Your task to perform on an android device: check the backup settings in the google photos Image 0: 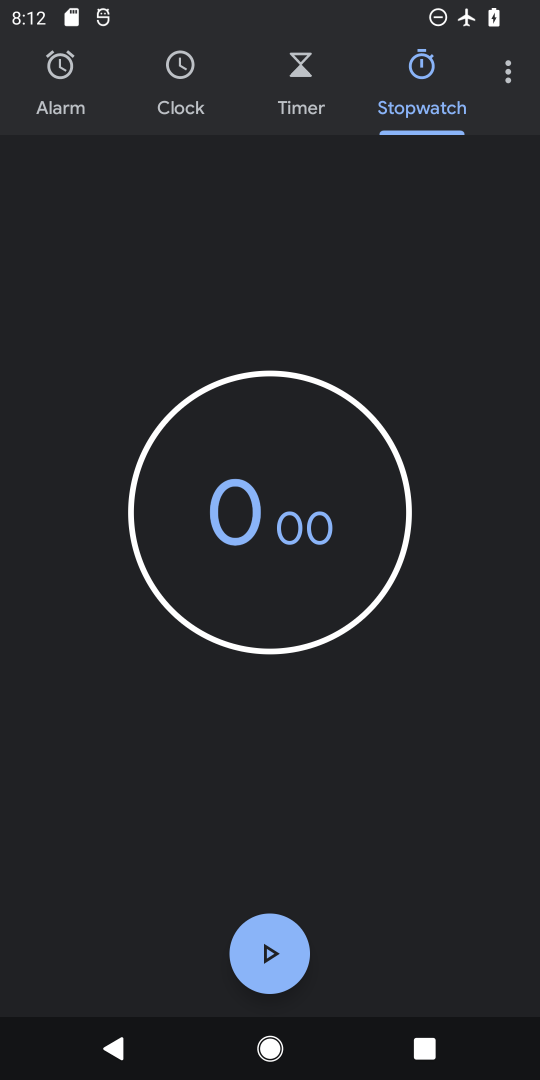
Step 0: press back button
Your task to perform on an android device: check the backup settings in the google photos Image 1: 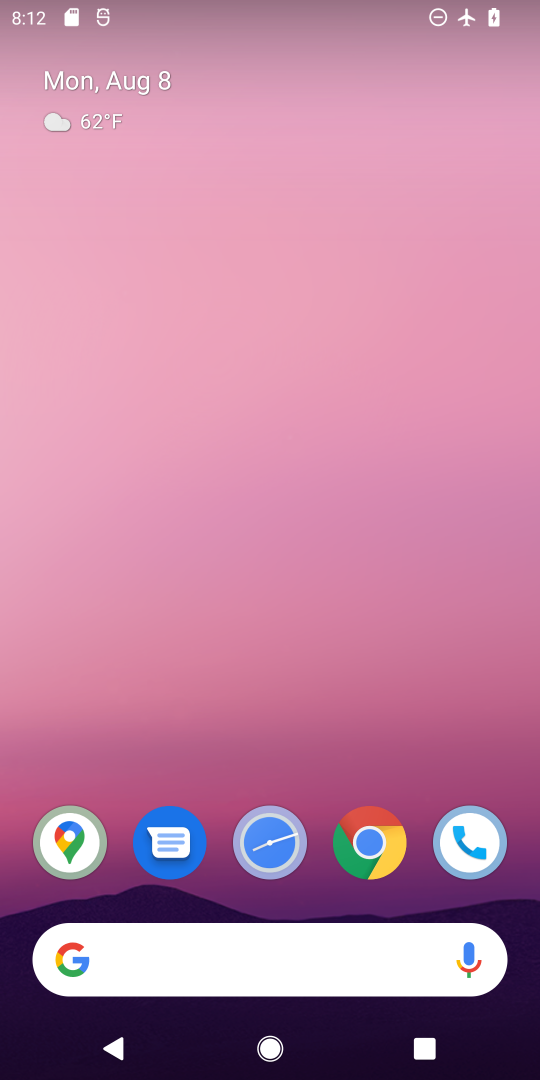
Step 1: drag from (313, 910) to (273, 128)
Your task to perform on an android device: check the backup settings in the google photos Image 2: 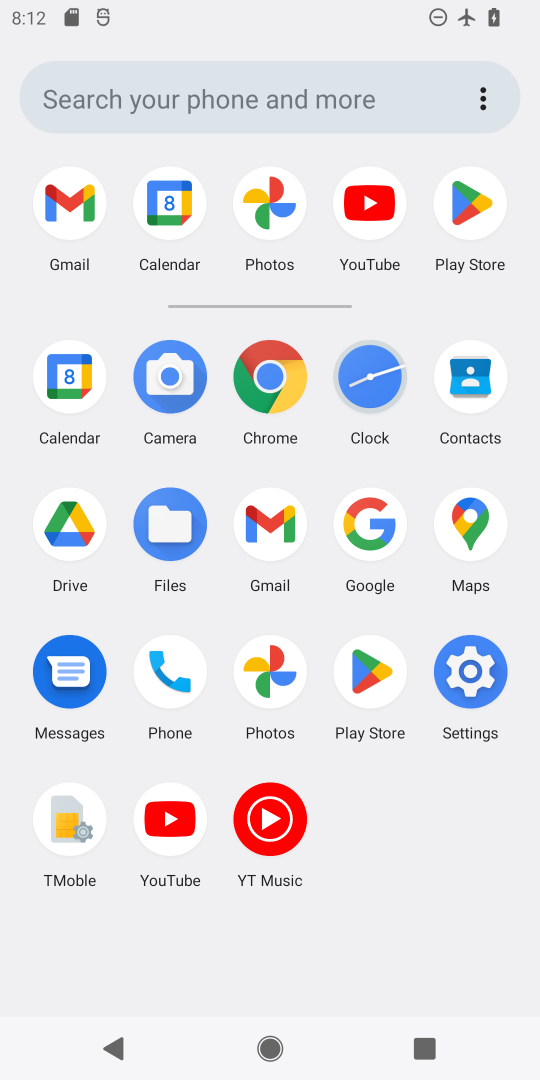
Step 2: click (497, 692)
Your task to perform on an android device: check the backup settings in the google photos Image 3: 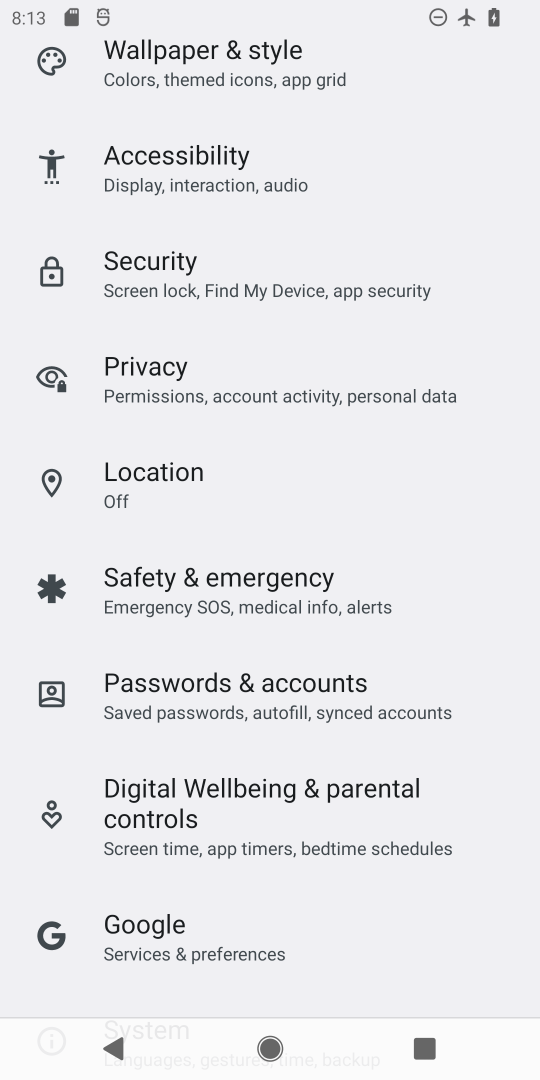
Step 3: press home button
Your task to perform on an android device: check the backup settings in the google photos Image 4: 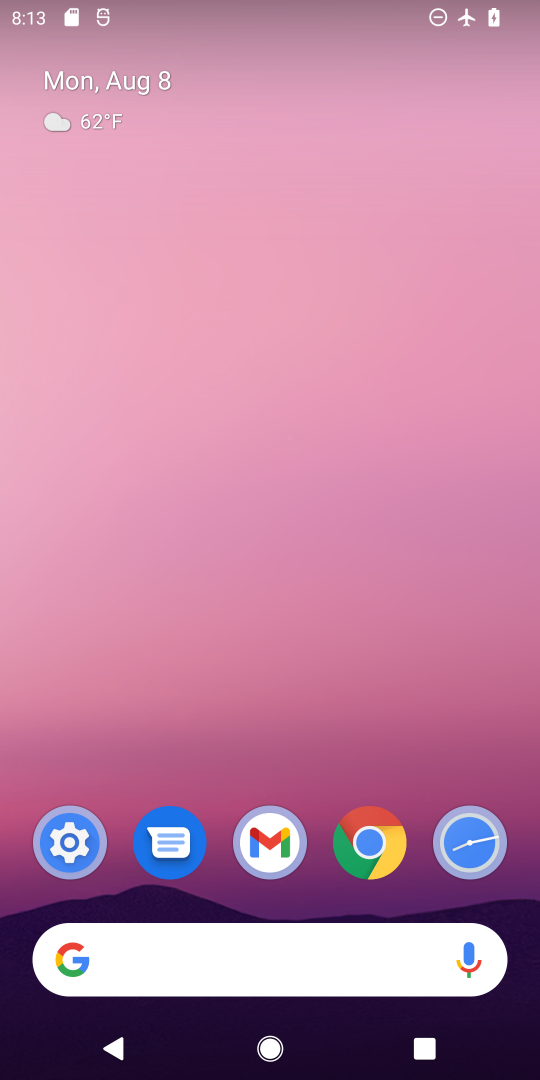
Step 4: drag from (277, 145) to (268, 4)
Your task to perform on an android device: check the backup settings in the google photos Image 5: 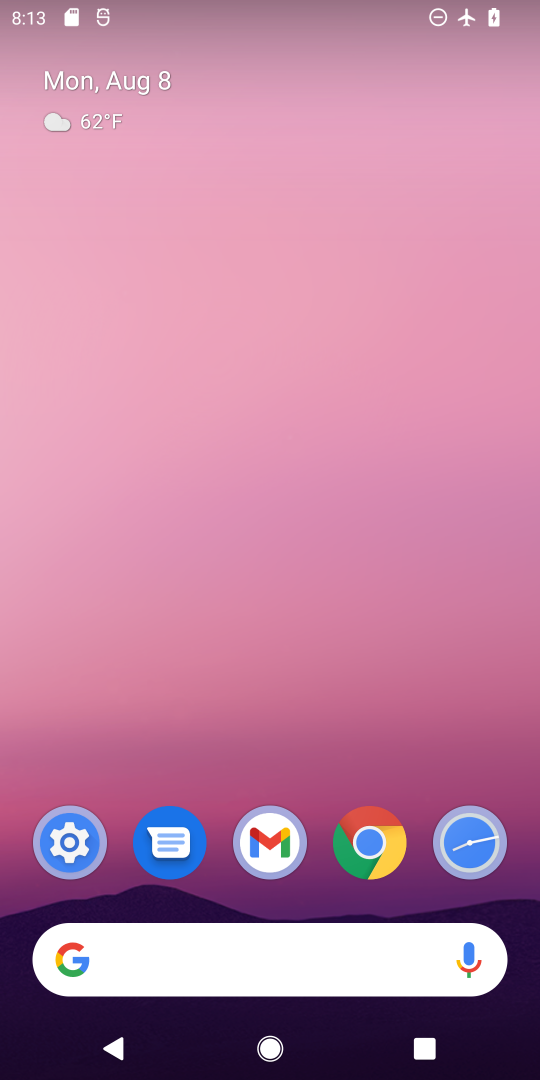
Step 5: drag from (227, 330) to (220, 49)
Your task to perform on an android device: check the backup settings in the google photos Image 6: 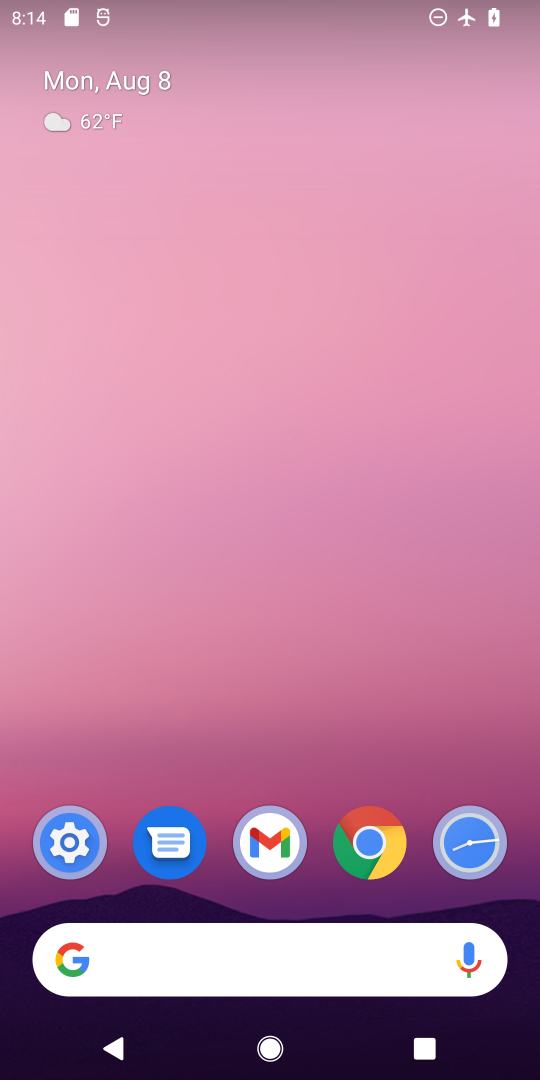
Step 6: drag from (308, 801) to (211, 157)
Your task to perform on an android device: check the backup settings in the google photos Image 7: 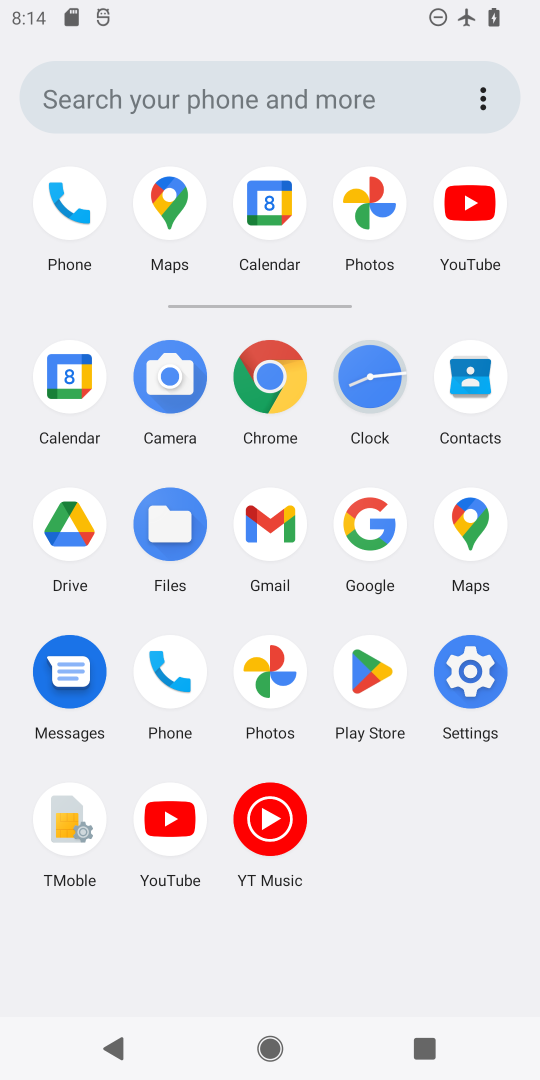
Step 7: click (249, 666)
Your task to perform on an android device: check the backup settings in the google photos Image 8: 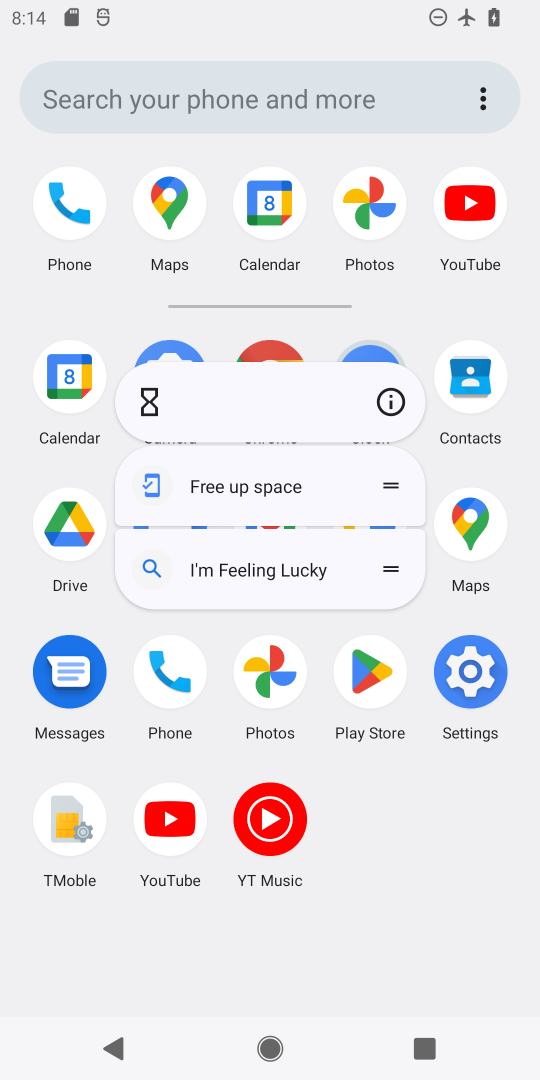
Step 8: click (279, 700)
Your task to perform on an android device: check the backup settings in the google photos Image 9: 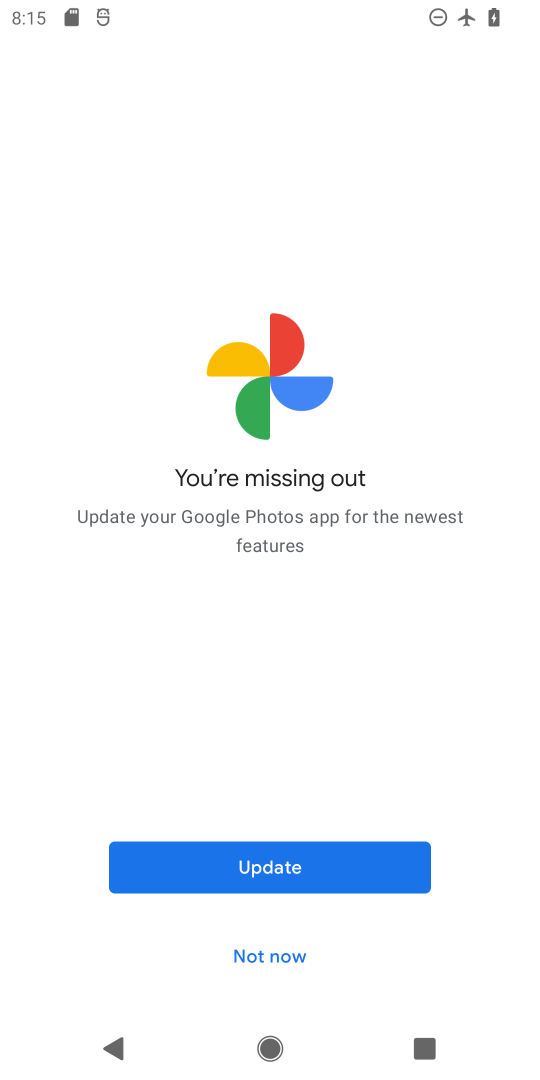
Step 9: click (241, 945)
Your task to perform on an android device: check the backup settings in the google photos Image 10: 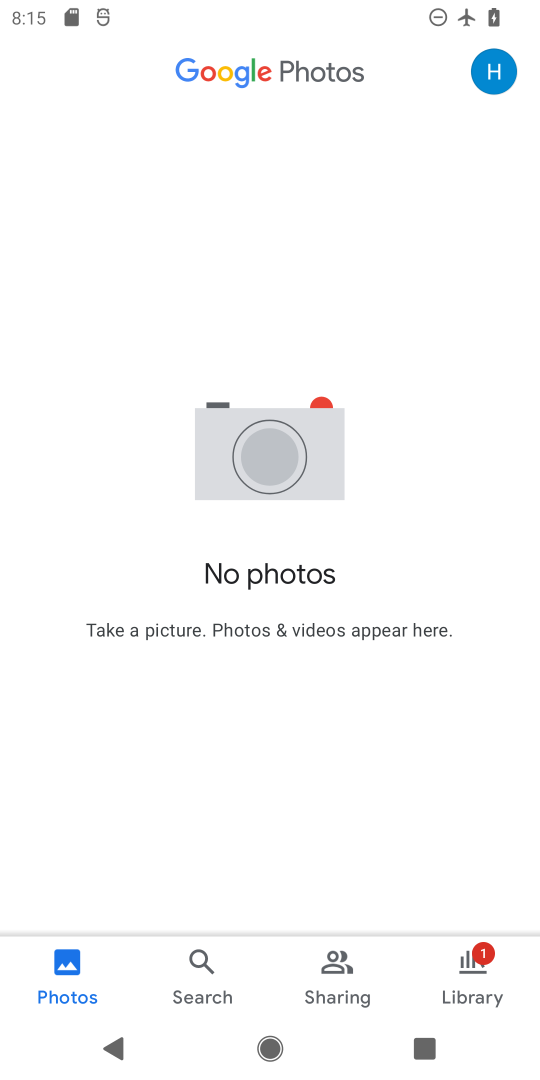
Step 10: click (490, 74)
Your task to perform on an android device: check the backup settings in the google photos Image 11: 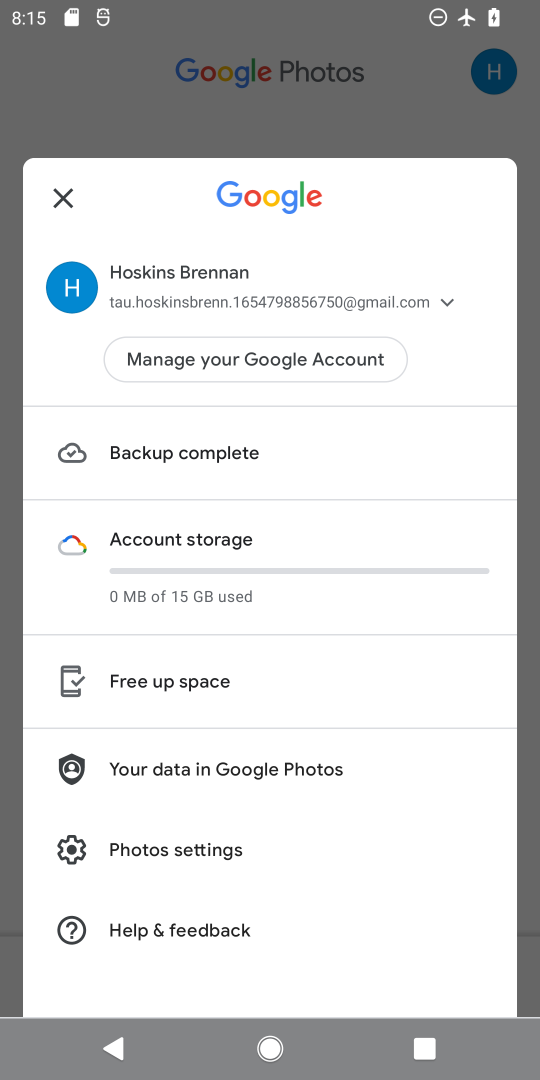
Step 11: click (133, 857)
Your task to perform on an android device: check the backup settings in the google photos Image 12: 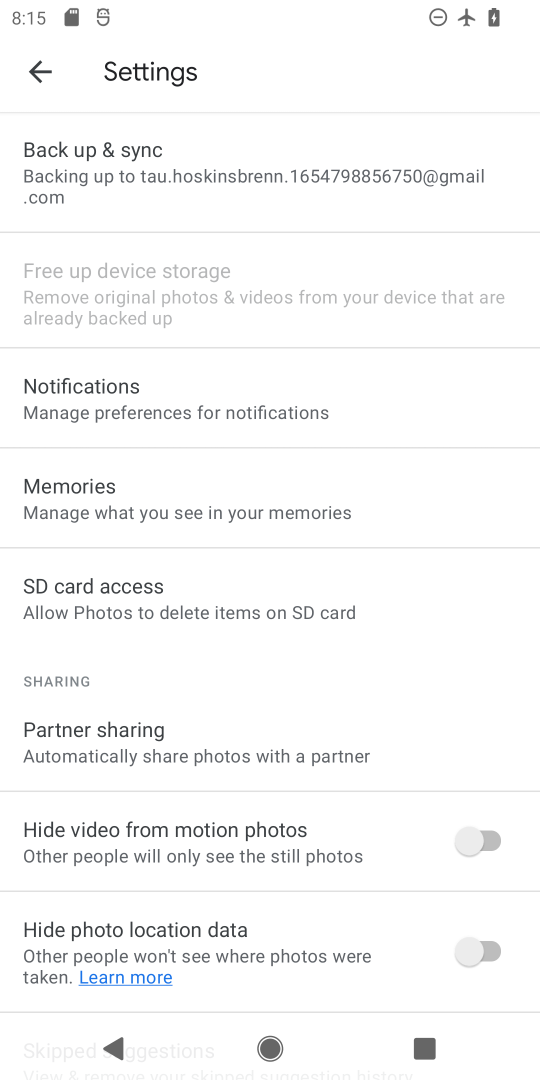
Step 12: click (197, 164)
Your task to perform on an android device: check the backup settings in the google photos Image 13: 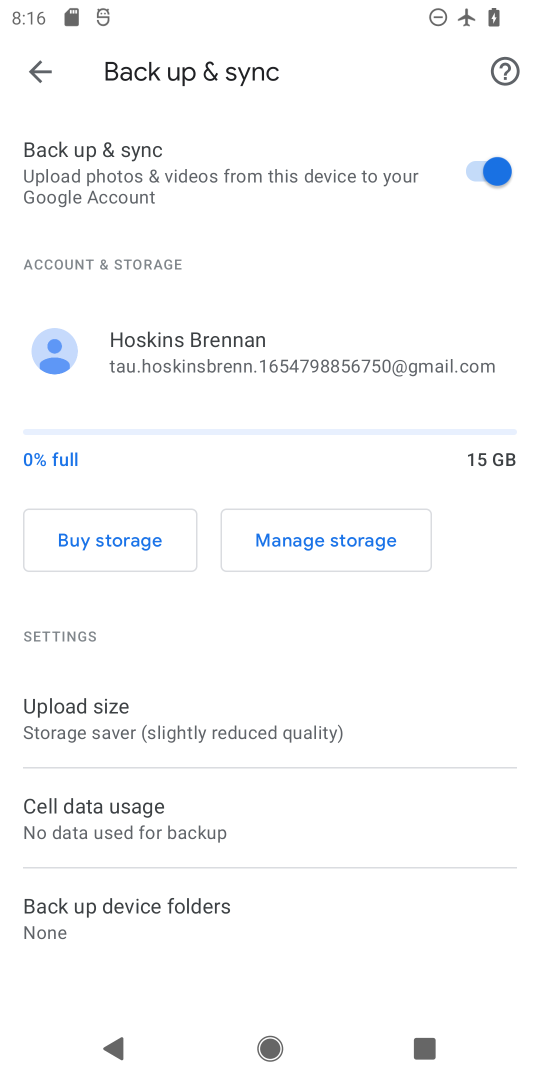
Step 13: task complete